Your task to perform on an android device: Go to wifi settings Image 0: 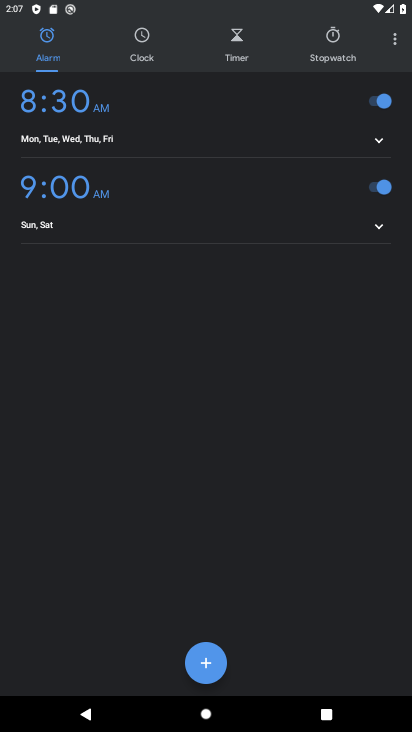
Step 0: press home button
Your task to perform on an android device: Go to wifi settings Image 1: 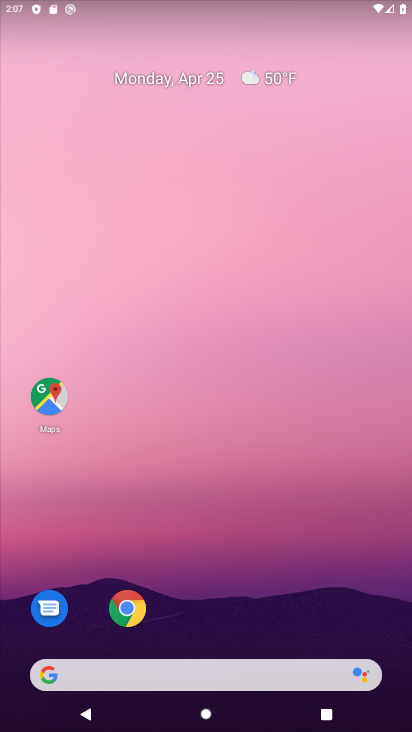
Step 1: drag from (212, 623) to (263, 176)
Your task to perform on an android device: Go to wifi settings Image 2: 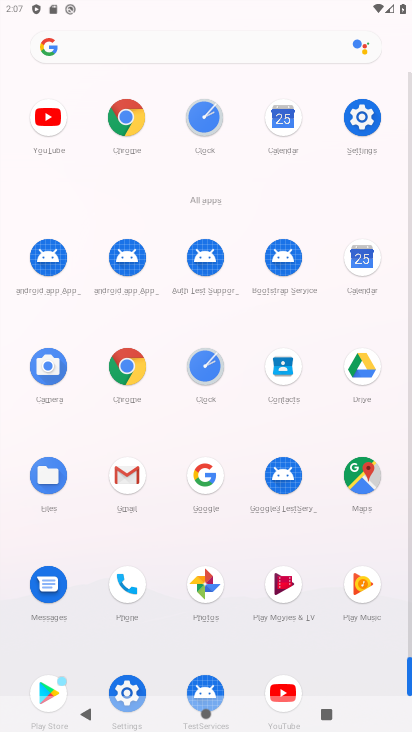
Step 2: click (353, 132)
Your task to perform on an android device: Go to wifi settings Image 3: 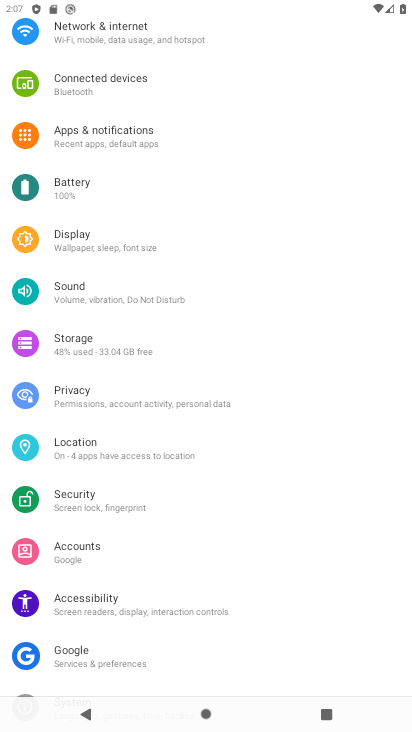
Step 3: drag from (205, 139) to (221, 533)
Your task to perform on an android device: Go to wifi settings Image 4: 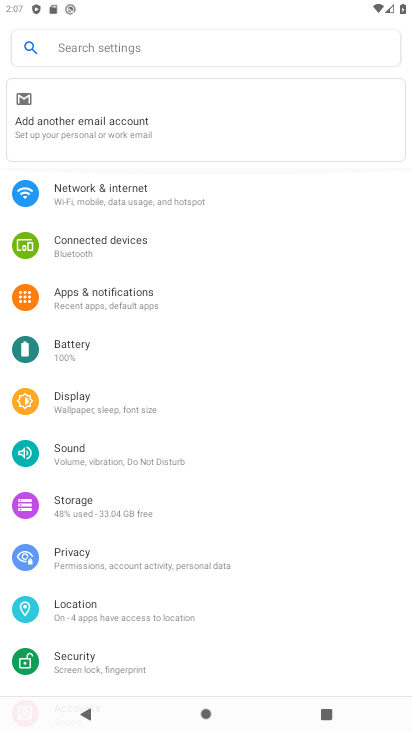
Step 4: click (130, 216)
Your task to perform on an android device: Go to wifi settings Image 5: 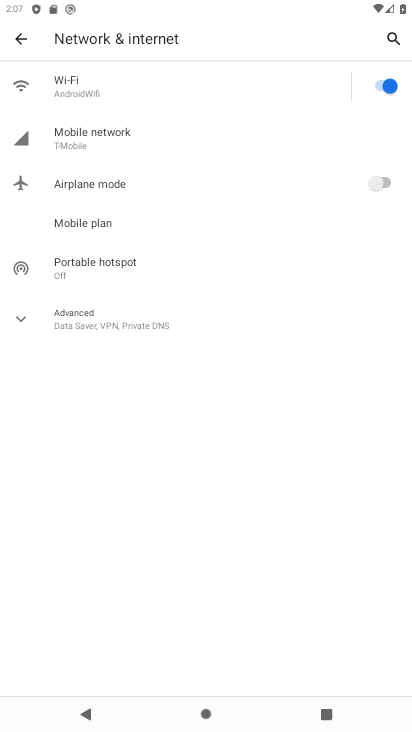
Step 5: click (115, 80)
Your task to perform on an android device: Go to wifi settings Image 6: 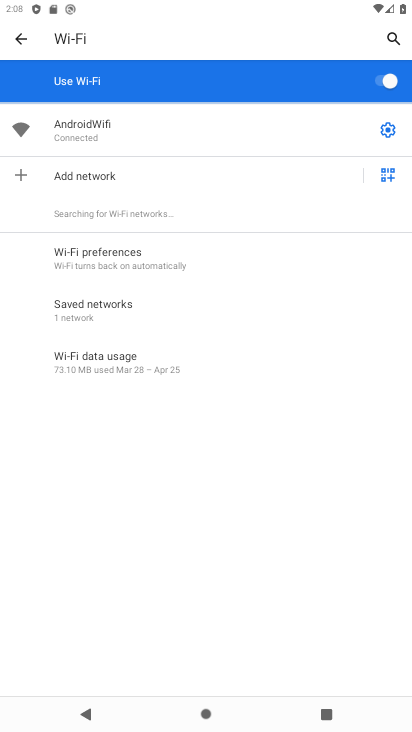
Step 6: task complete